Your task to perform on an android device: open app "LinkedIn" (install if not already installed) and go to login screen Image 0: 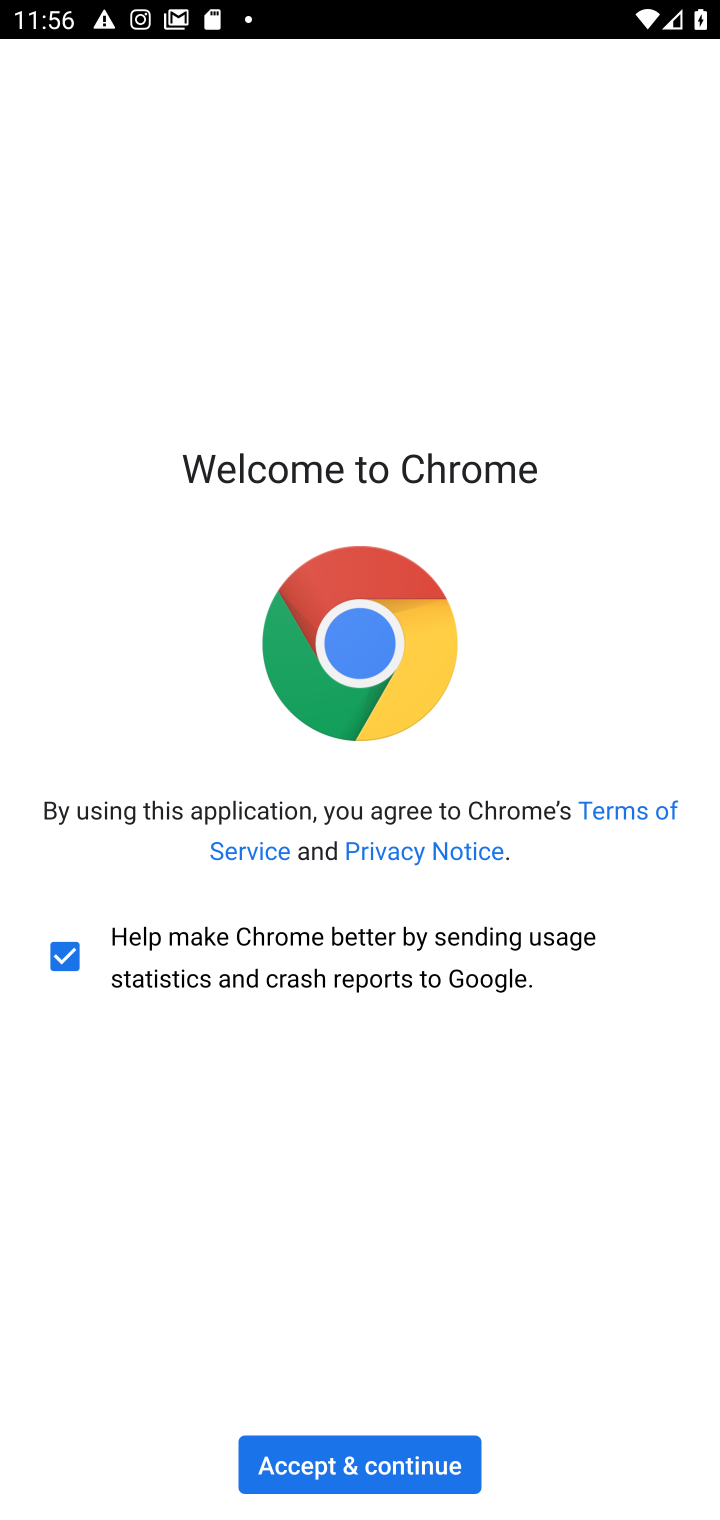
Step 0: press home button
Your task to perform on an android device: open app "LinkedIn" (install if not already installed) and go to login screen Image 1: 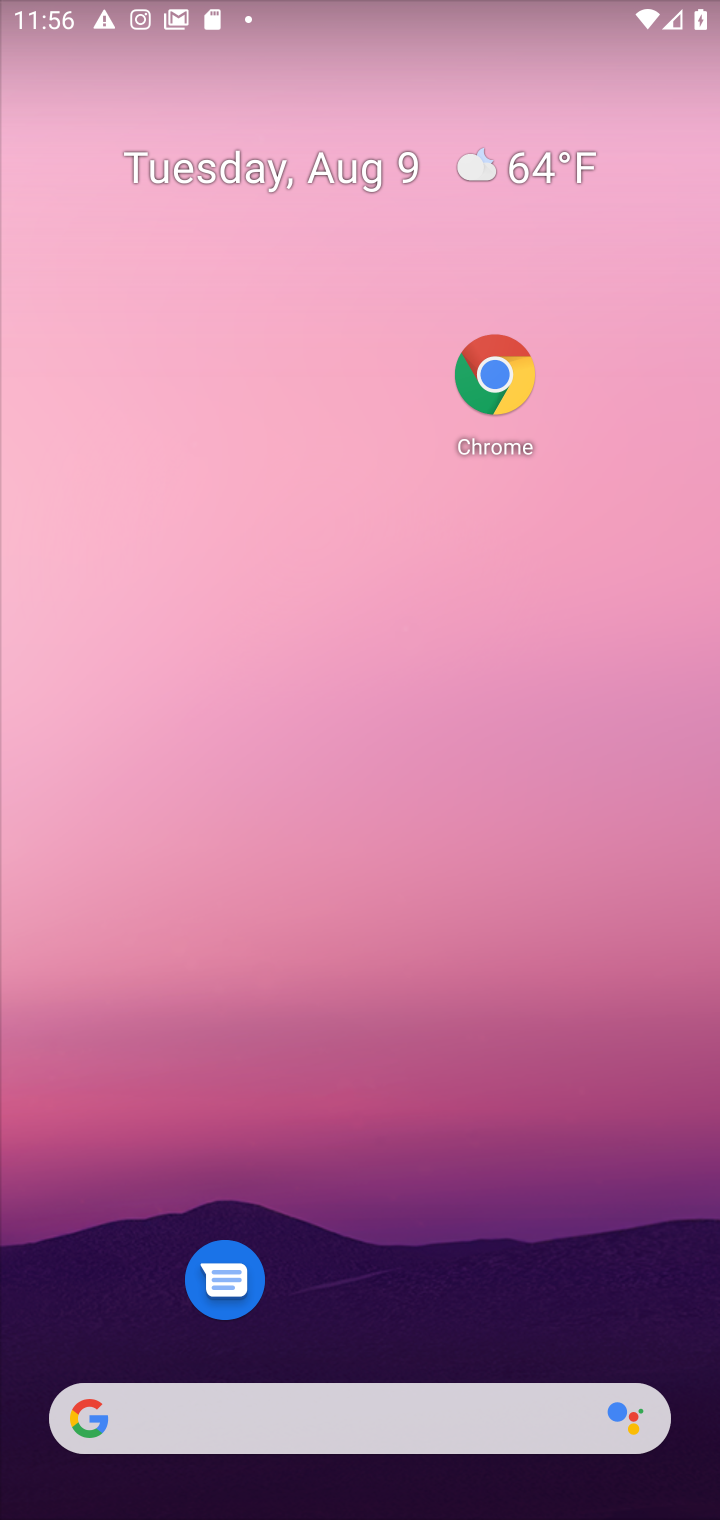
Step 1: drag from (312, 1372) to (301, 538)
Your task to perform on an android device: open app "LinkedIn" (install if not already installed) and go to login screen Image 2: 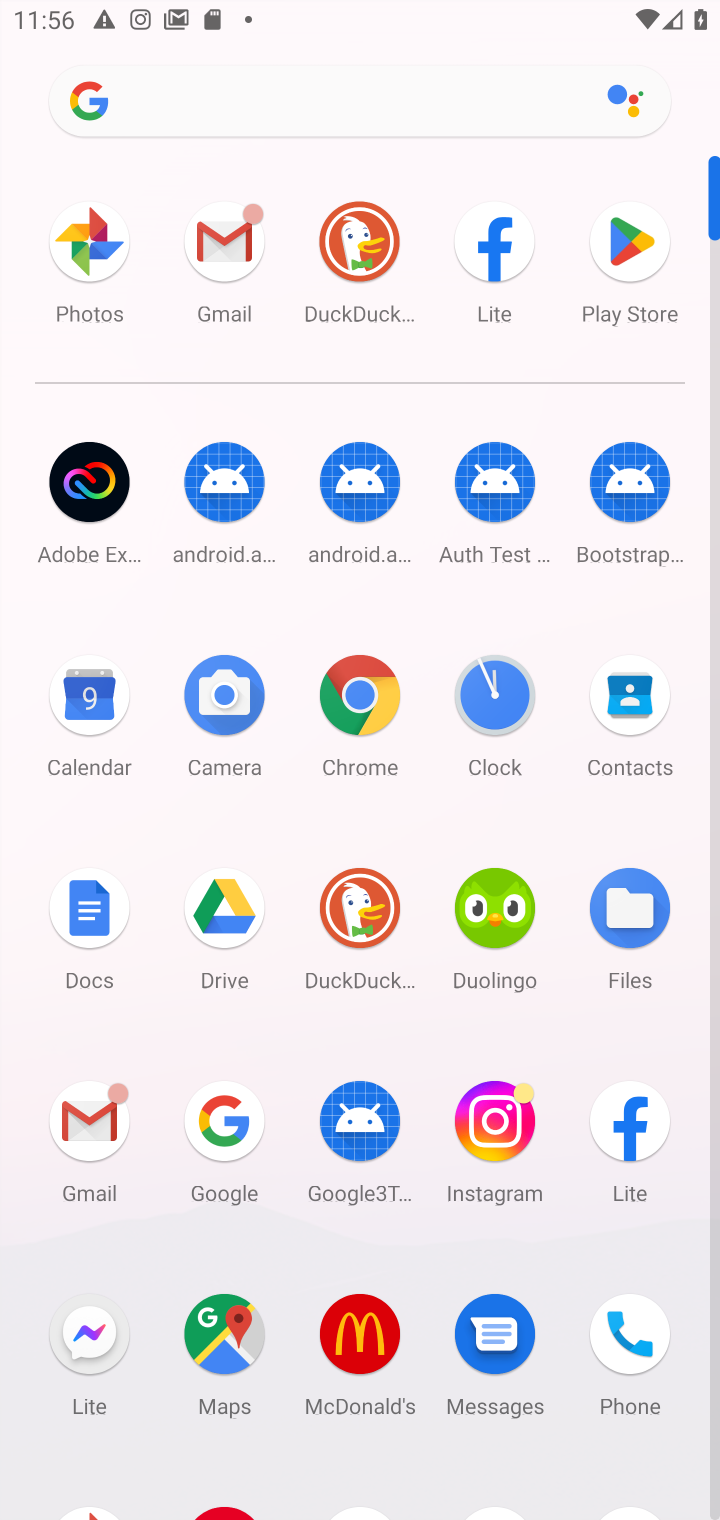
Step 2: click (610, 274)
Your task to perform on an android device: open app "LinkedIn" (install if not already installed) and go to login screen Image 3: 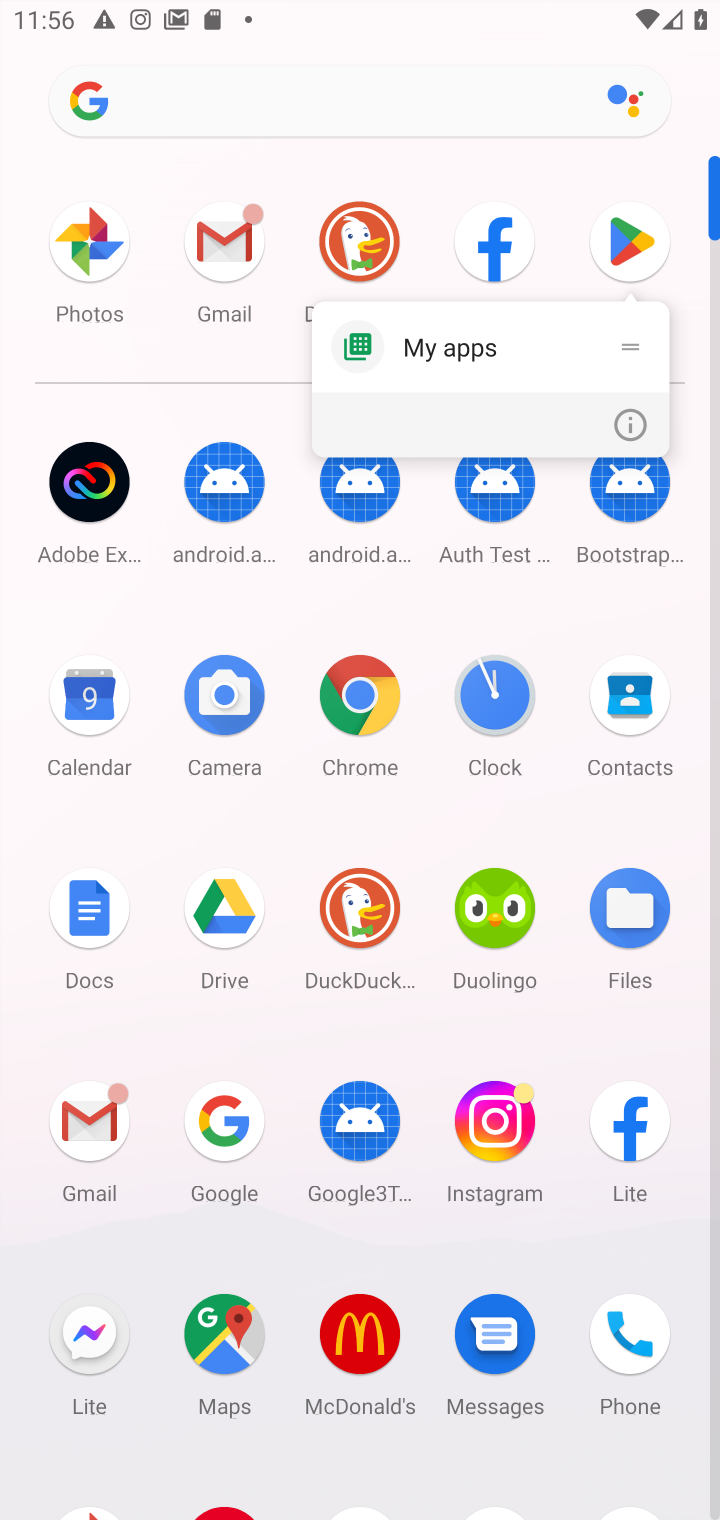
Step 3: click (609, 245)
Your task to perform on an android device: open app "LinkedIn" (install if not already installed) and go to login screen Image 4: 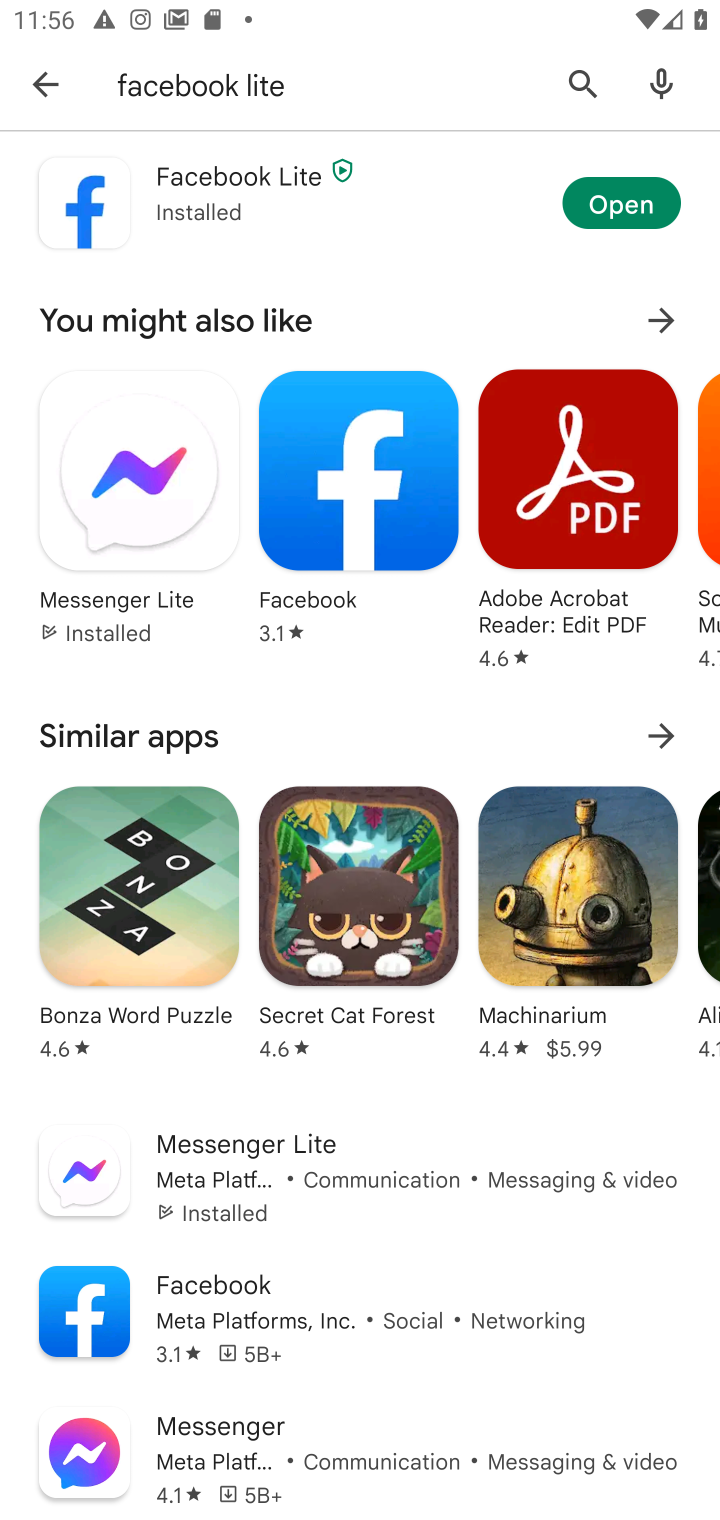
Step 4: click (61, 92)
Your task to perform on an android device: open app "LinkedIn" (install if not already installed) and go to login screen Image 5: 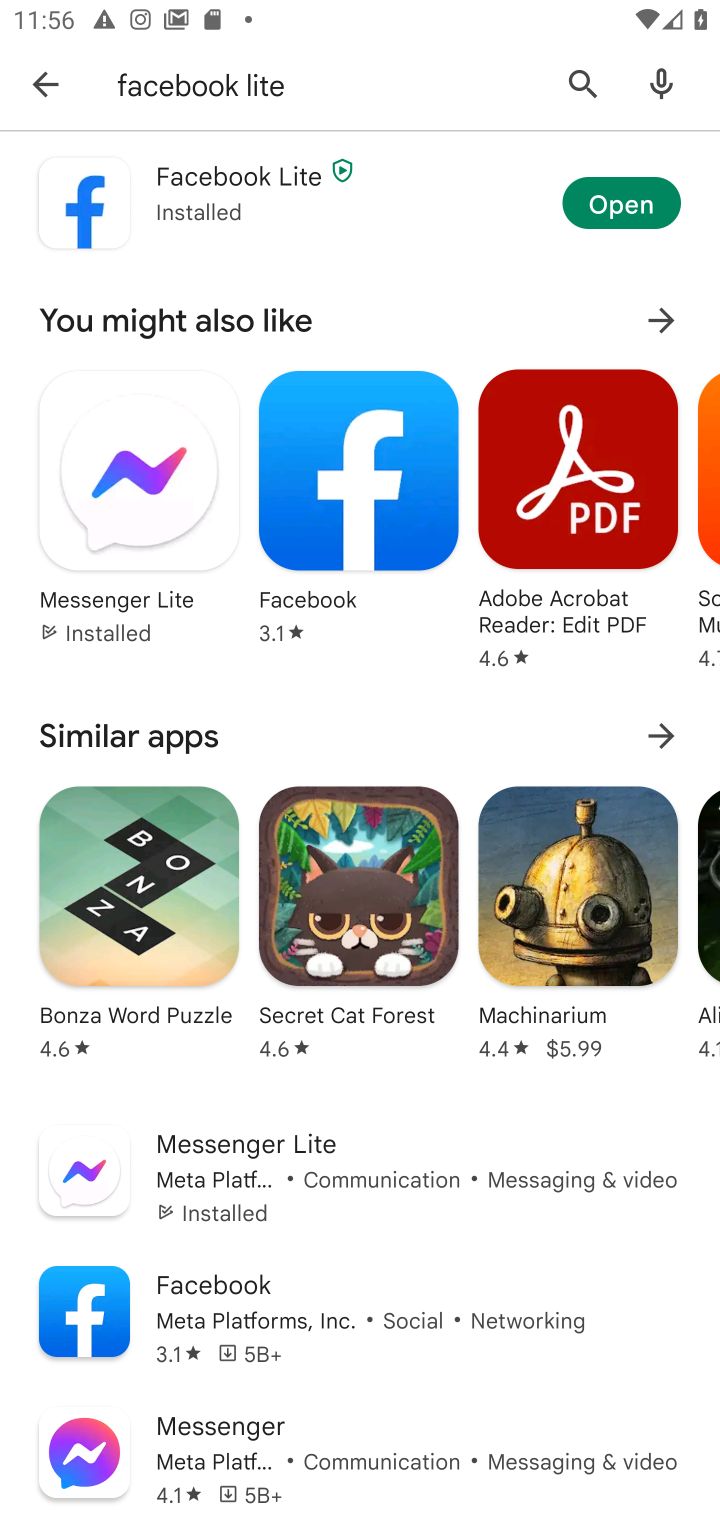
Step 5: click (70, 96)
Your task to perform on an android device: open app "LinkedIn" (install if not already installed) and go to login screen Image 6: 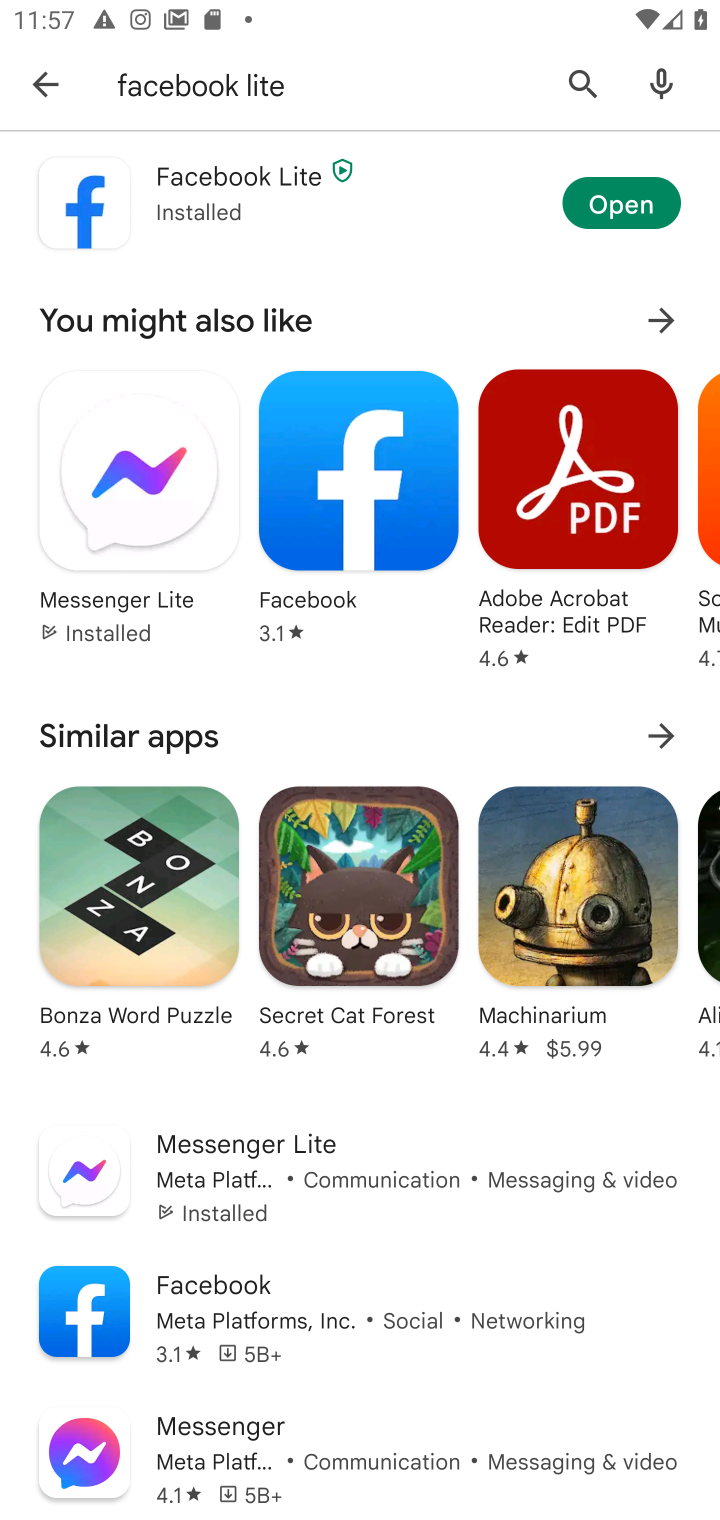
Step 6: click (57, 96)
Your task to perform on an android device: open app "LinkedIn" (install if not already installed) and go to login screen Image 7: 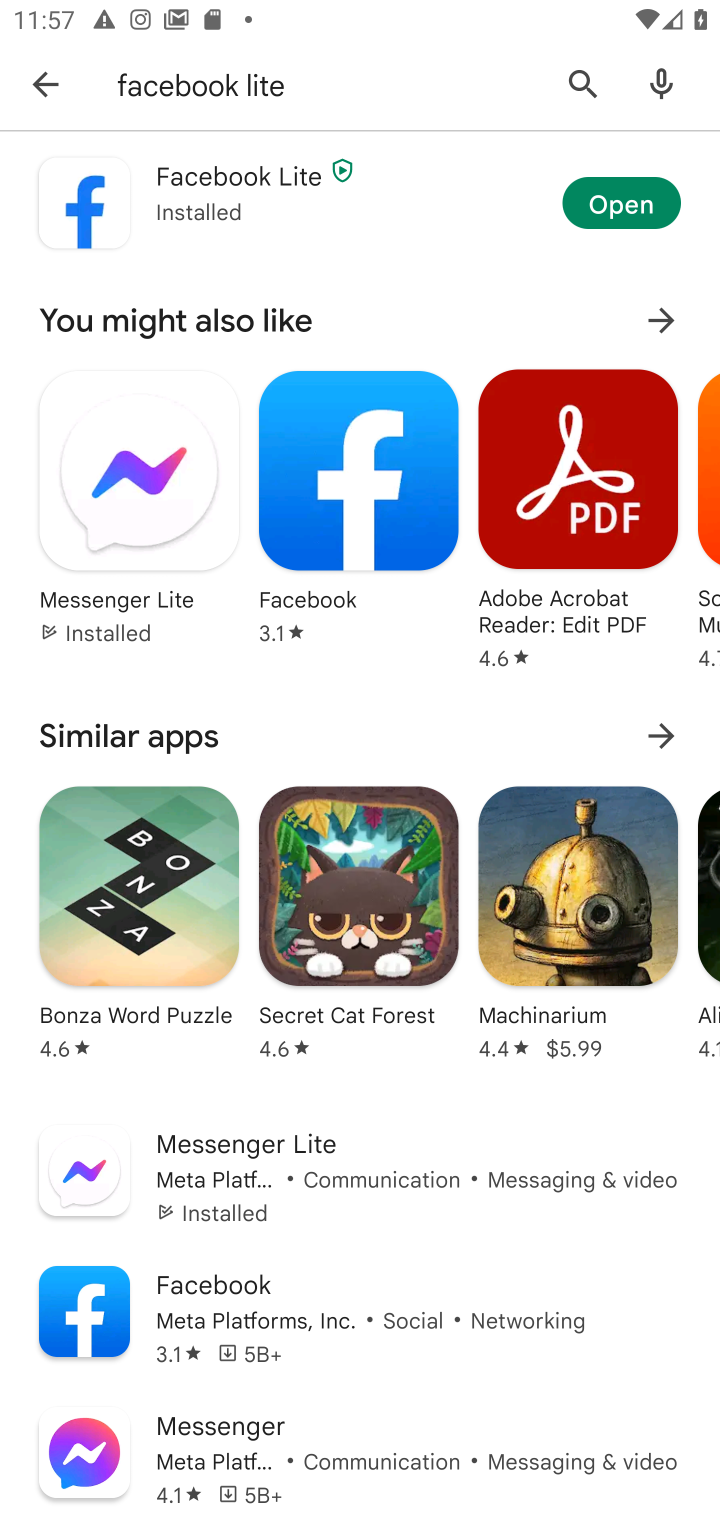
Step 7: click (576, 72)
Your task to perform on an android device: open app "LinkedIn" (install if not already installed) and go to login screen Image 8: 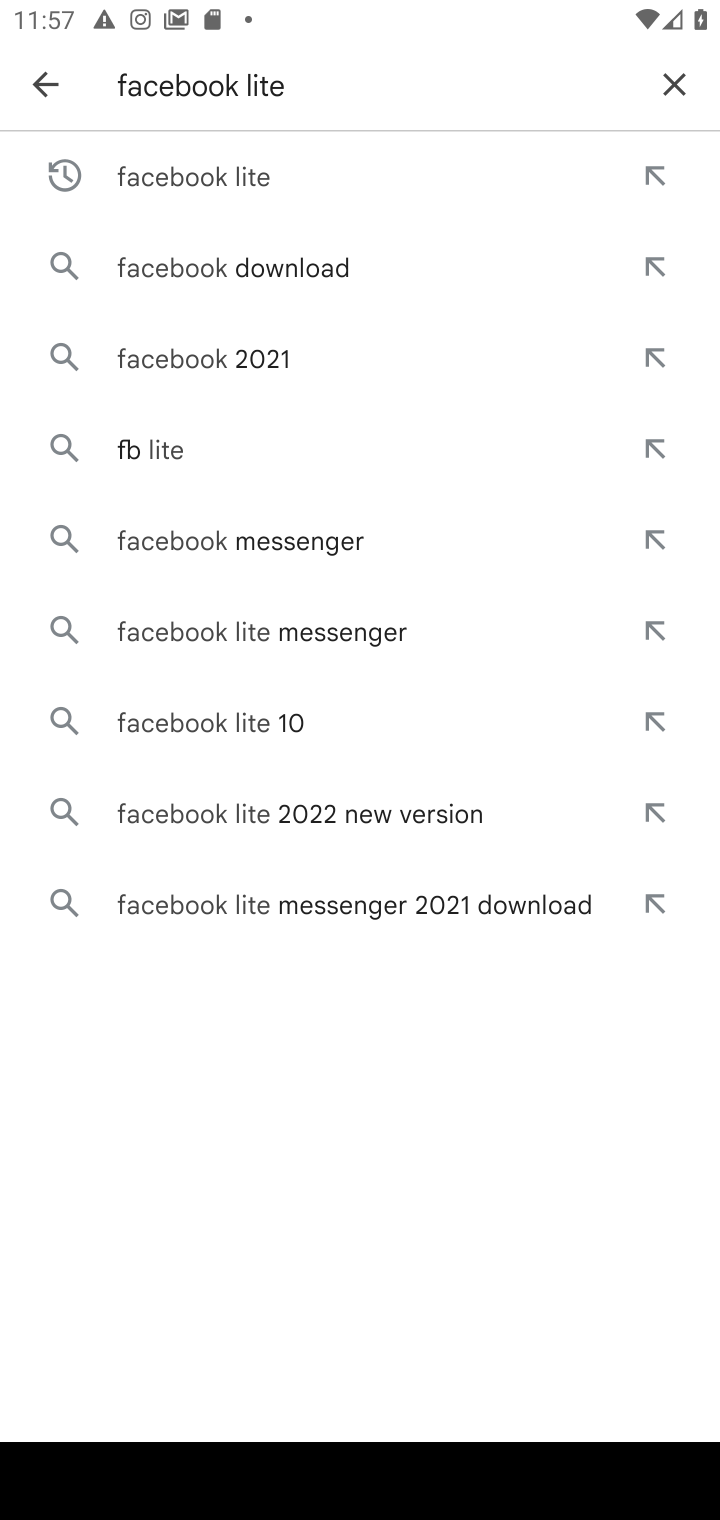
Step 8: click (651, 82)
Your task to perform on an android device: open app "LinkedIn" (install if not already installed) and go to login screen Image 9: 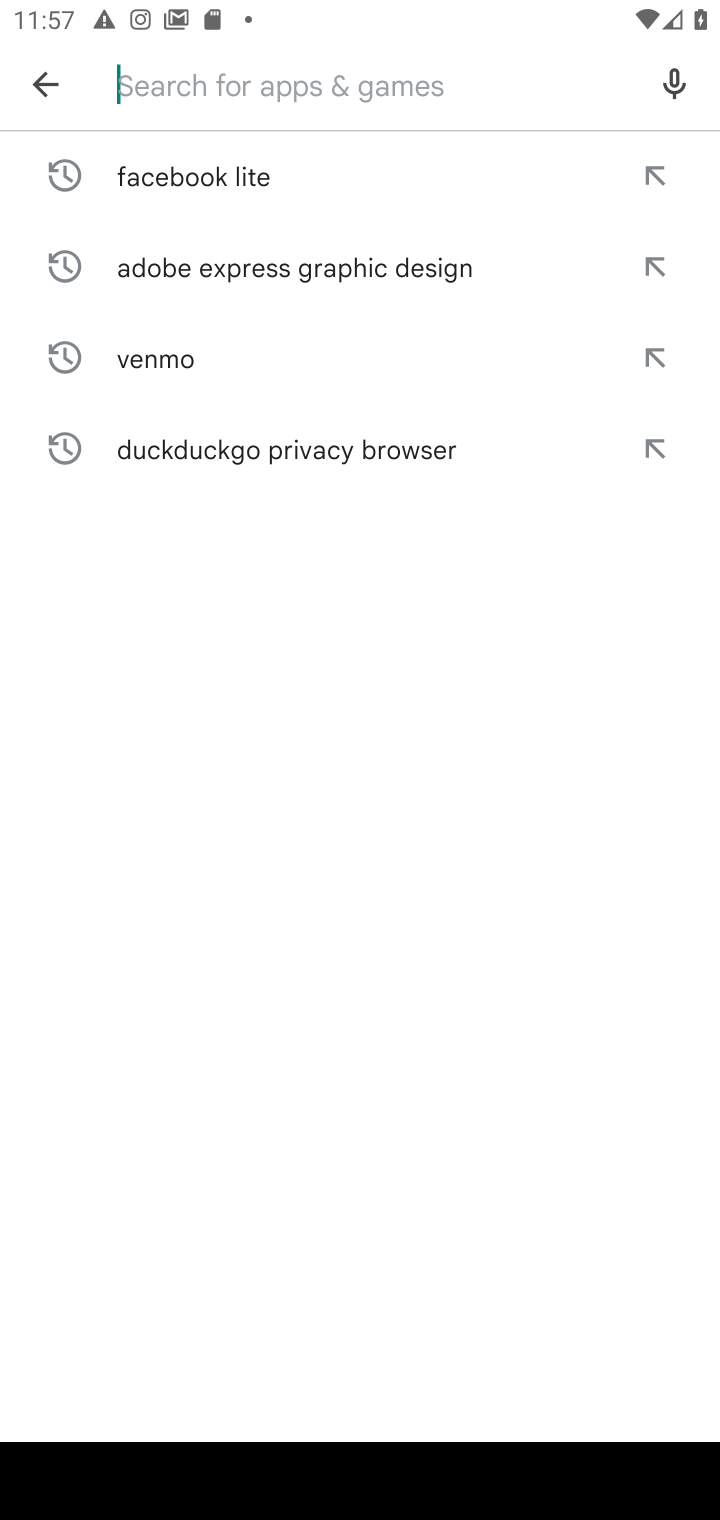
Step 9: type "LinkedIn"
Your task to perform on an android device: open app "LinkedIn" (install if not already installed) and go to login screen Image 10: 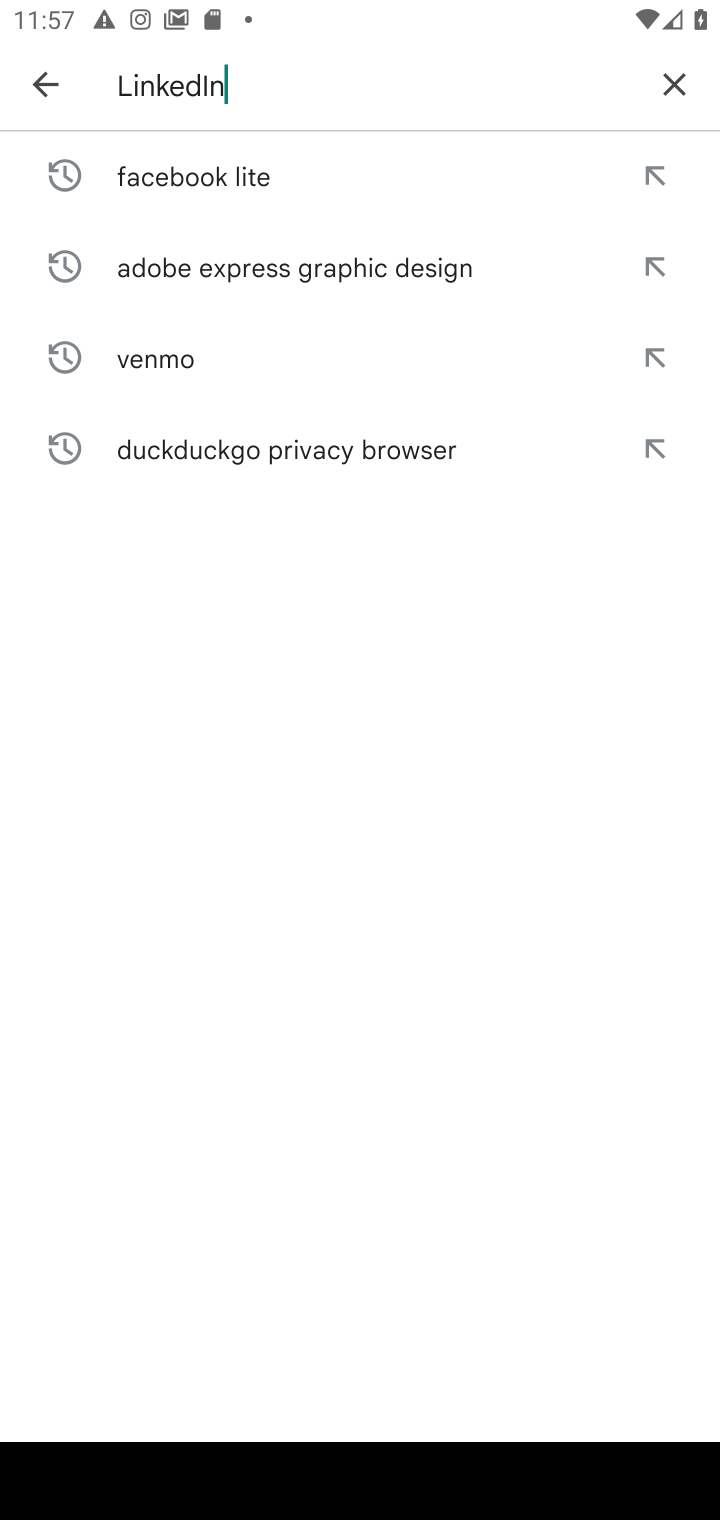
Step 10: type ""
Your task to perform on an android device: open app "LinkedIn" (install if not already installed) and go to login screen Image 11: 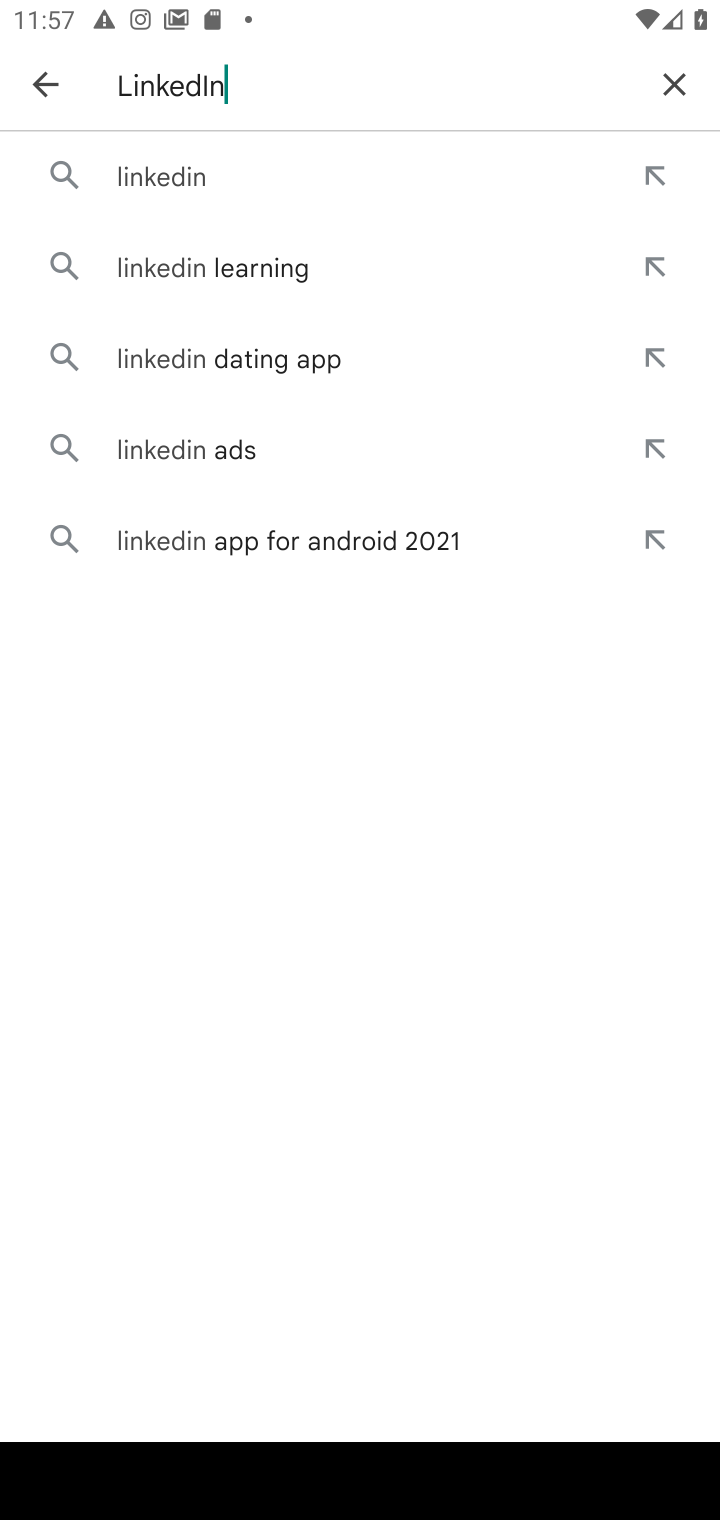
Step 11: click (150, 171)
Your task to perform on an android device: open app "LinkedIn" (install if not already installed) and go to login screen Image 12: 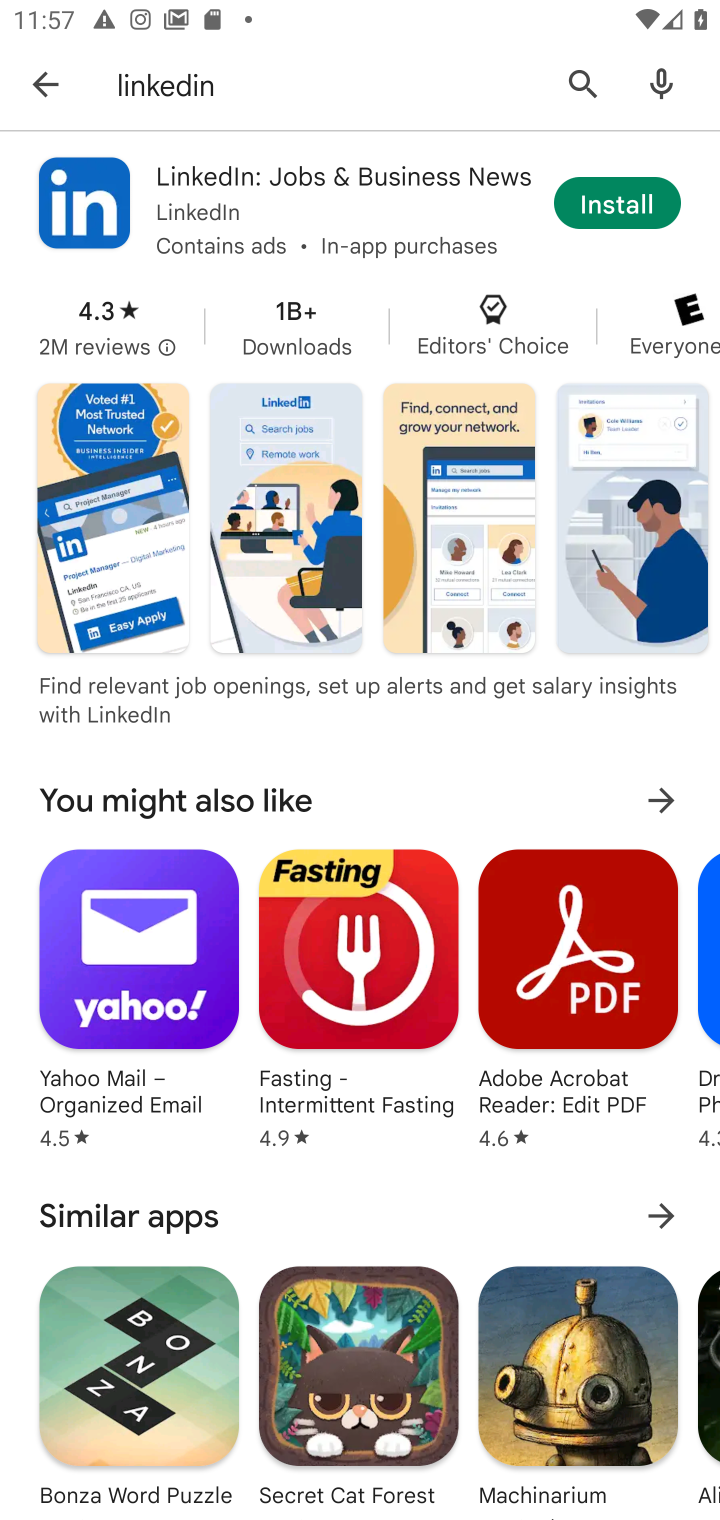
Step 12: click (601, 197)
Your task to perform on an android device: open app "LinkedIn" (install if not already installed) and go to login screen Image 13: 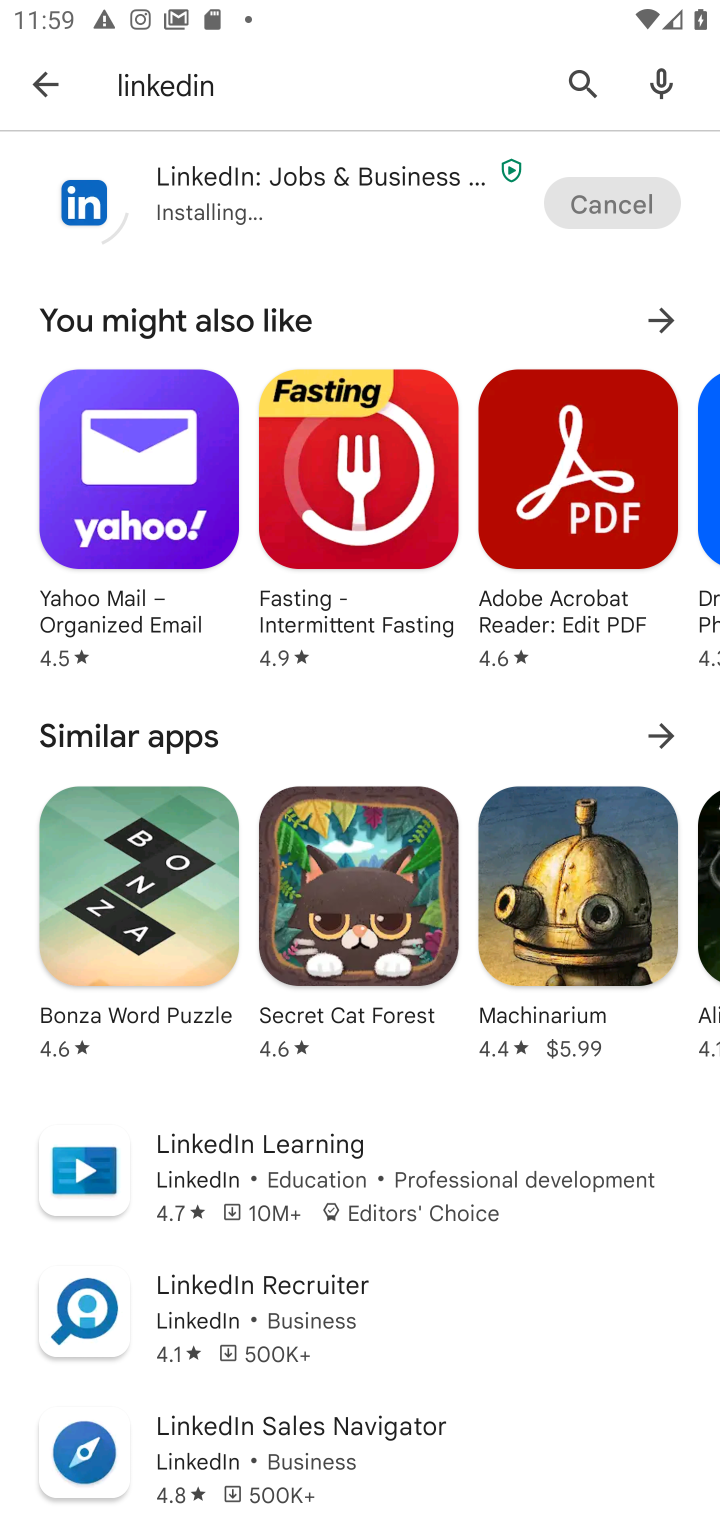
Step 13: click (249, 193)
Your task to perform on an android device: open app "LinkedIn" (install if not already installed) and go to login screen Image 14: 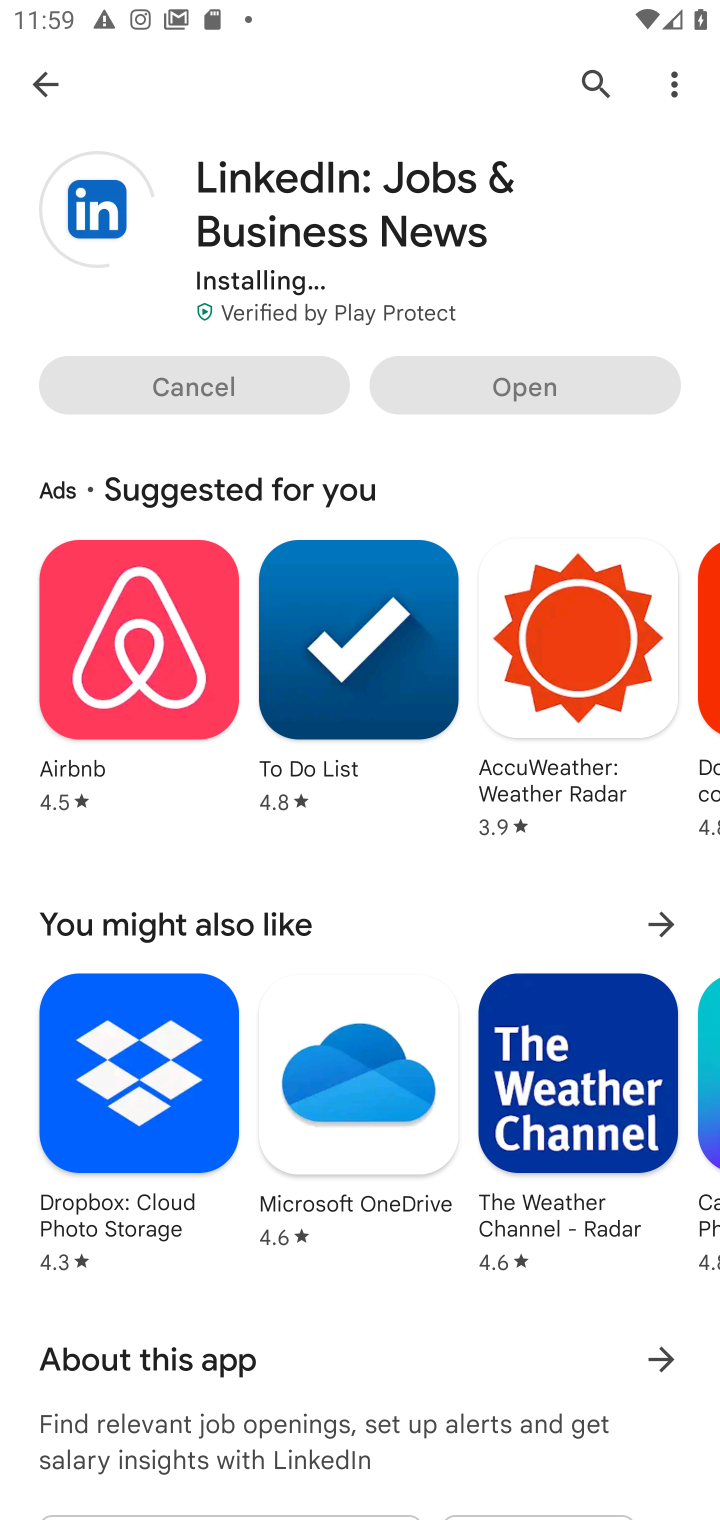
Step 14: click (608, 383)
Your task to perform on an android device: open app "LinkedIn" (install if not already installed) and go to login screen Image 15: 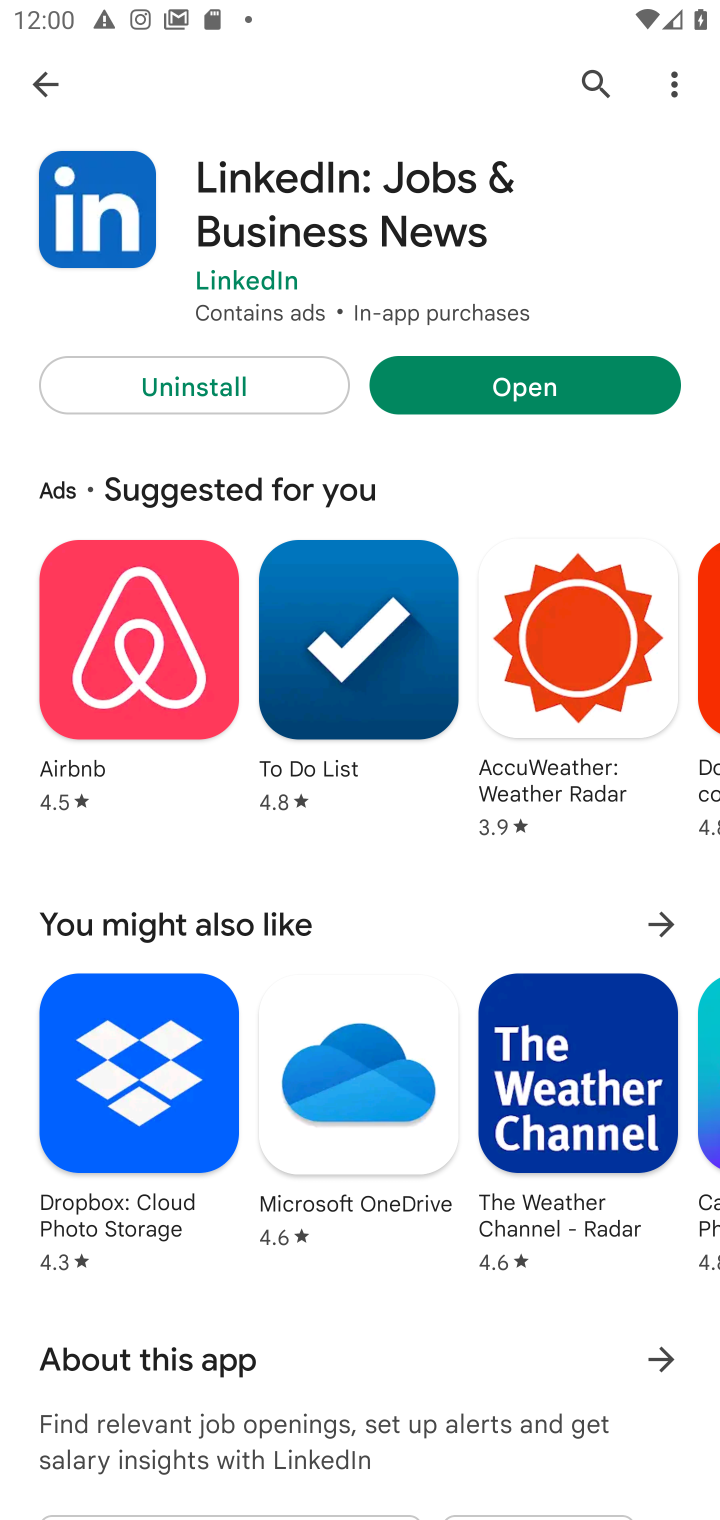
Step 15: click (614, 368)
Your task to perform on an android device: open app "LinkedIn" (install if not already installed) and go to login screen Image 16: 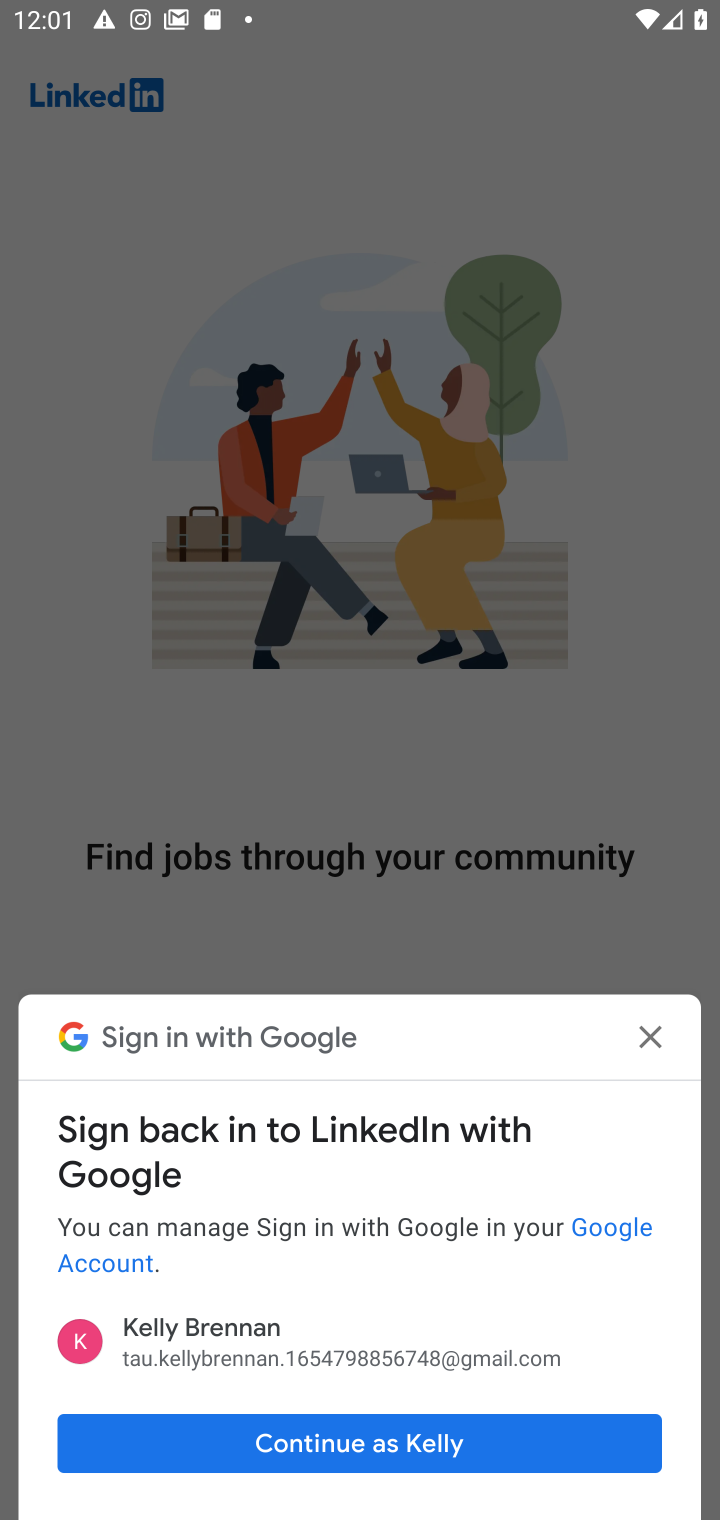
Step 16: click (660, 1037)
Your task to perform on an android device: open app "LinkedIn" (install if not already installed) and go to login screen Image 17: 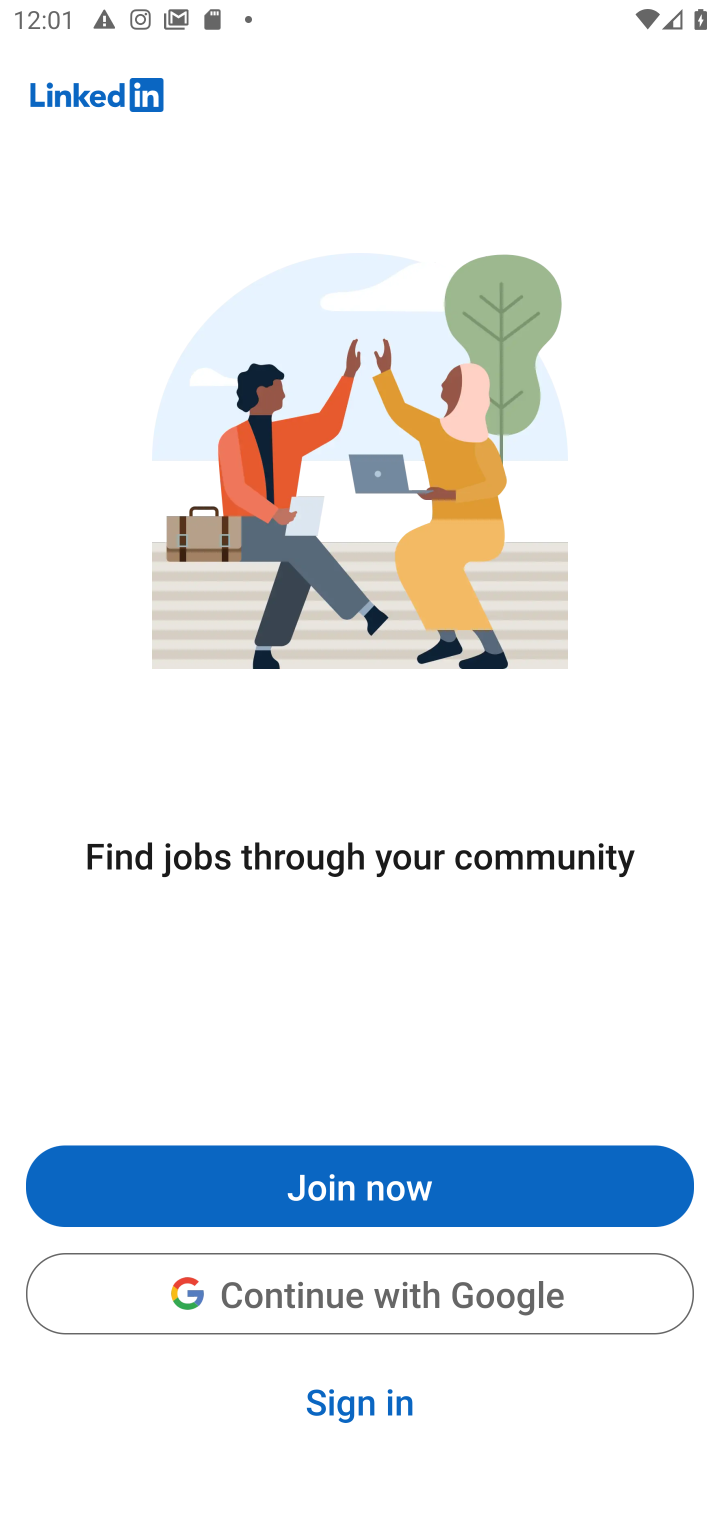
Step 17: click (318, 1393)
Your task to perform on an android device: open app "LinkedIn" (install if not already installed) and go to login screen Image 18: 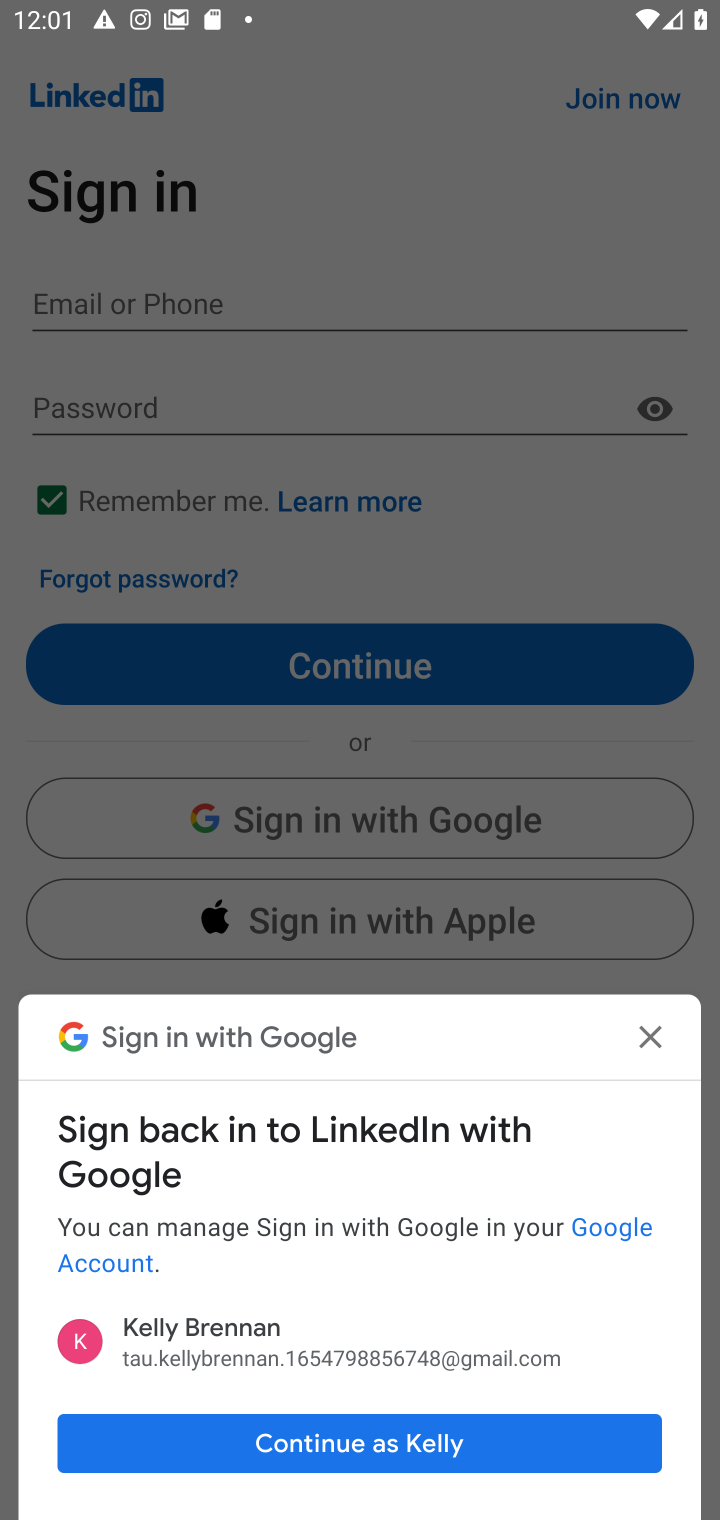
Step 18: click (632, 1028)
Your task to perform on an android device: open app "LinkedIn" (install if not already installed) and go to login screen Image 19: 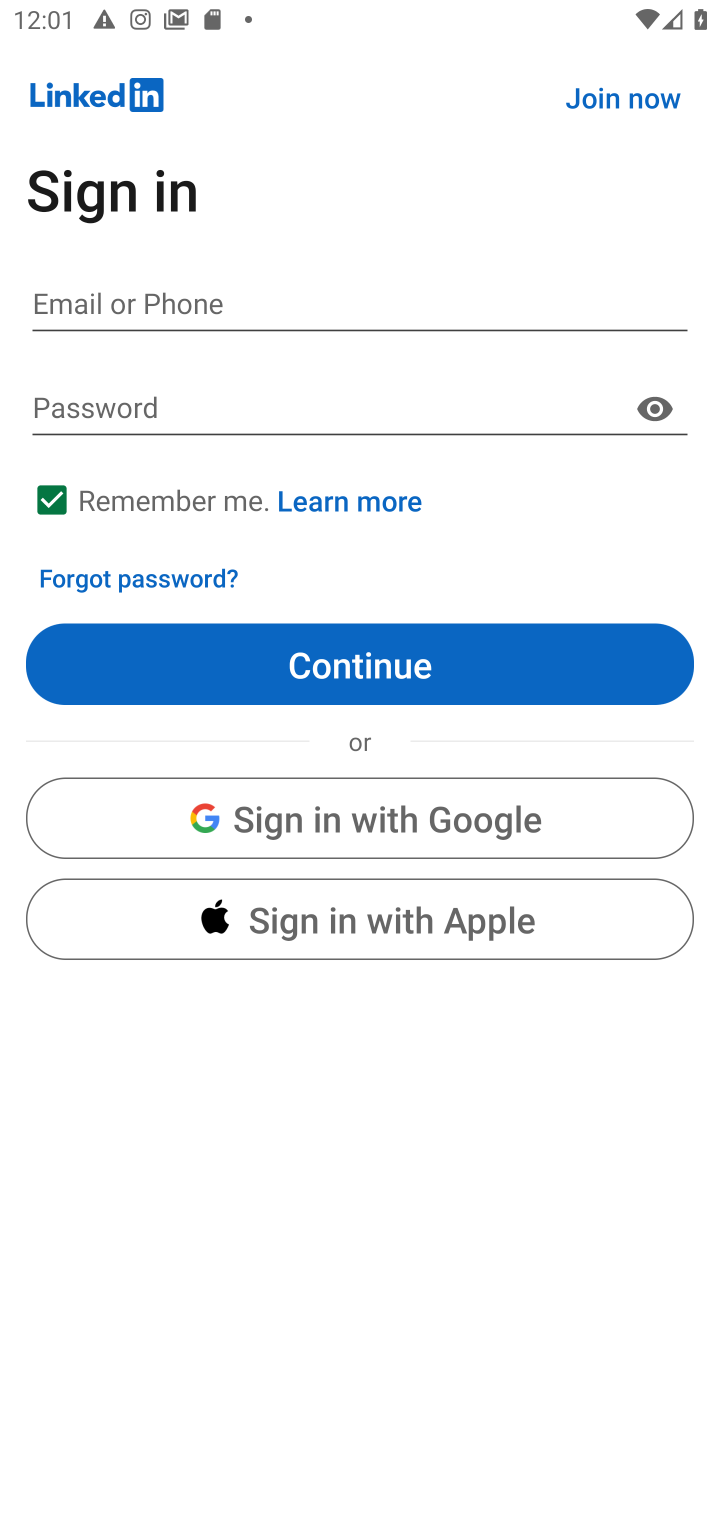
Step 19: task complete